Your task to perform on an android device: empty trash in google photos Image 0: 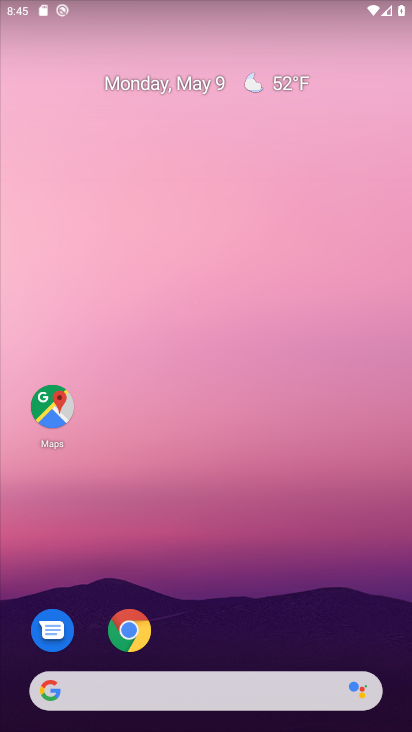
Step 0: drag from (224, 659) to (304, 33)
Your task to perform on an android device: empty trash in google photos Image 1: 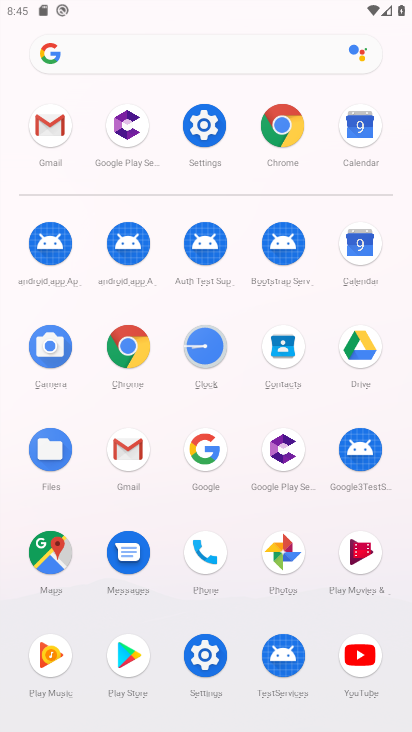
Step 1: click (292, 572)
Your task to perform on an android device: empty trash in google photos Image 2: 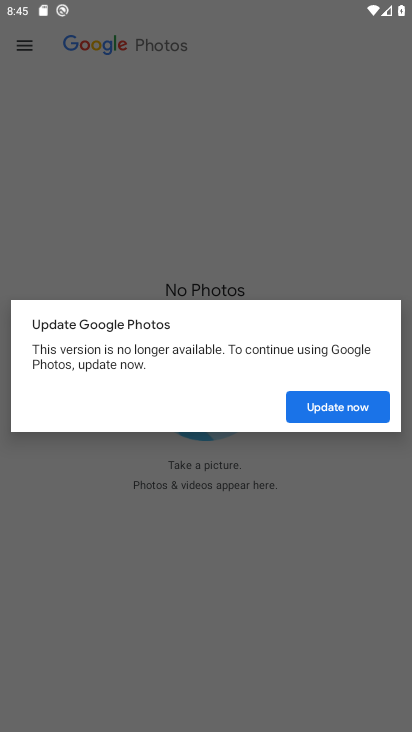
Step 2: click (356, 409)
Your task to perform on an android device: empty trash in google photos Image 3: 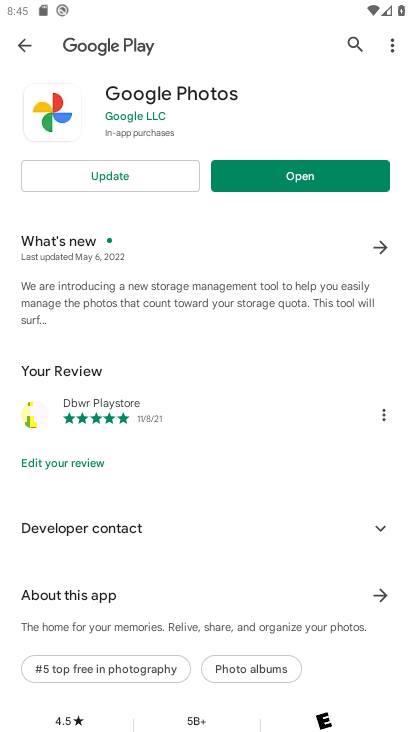
Step 3: click (256, 187)
Your task to perform on an android device: empty trash in google photos Image 4: 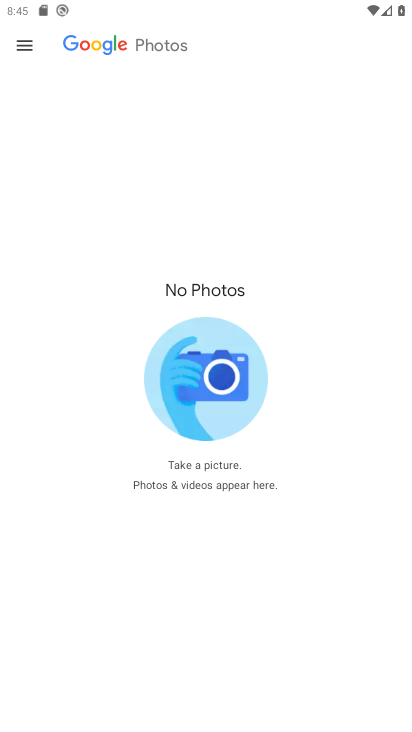
Step 4: drag from (189, 159) to (189, 621)
Your task to perform on an android device: empty trash in google photos Image 5: 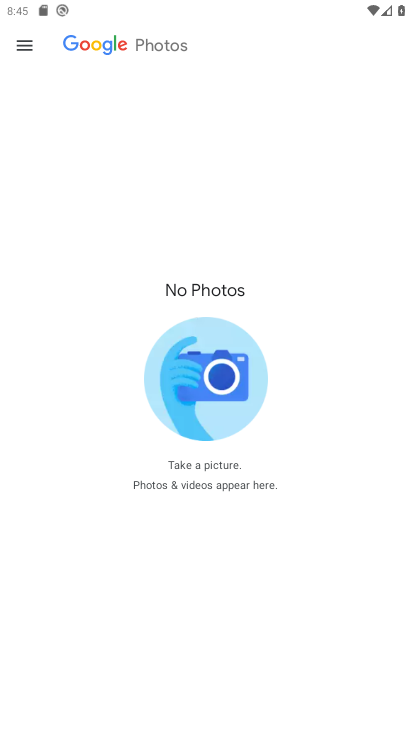
Step 5: click (32, 51)
Your task to perform on an android device: empty trash in google photos Image 6: 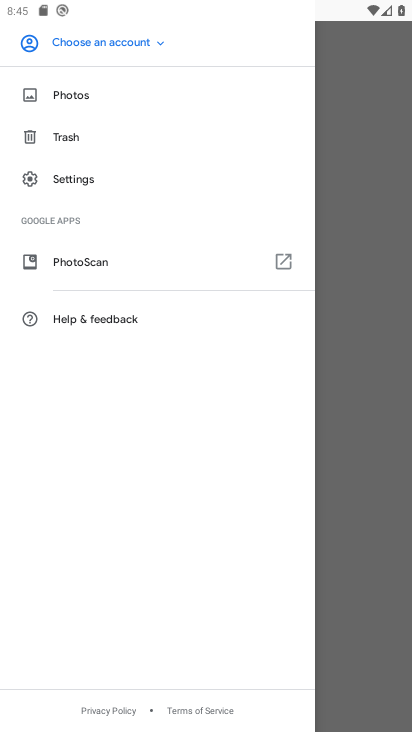
Step 6: click (74, 138)
Your task to perform on an android device: empty trash in google photos Image 7: 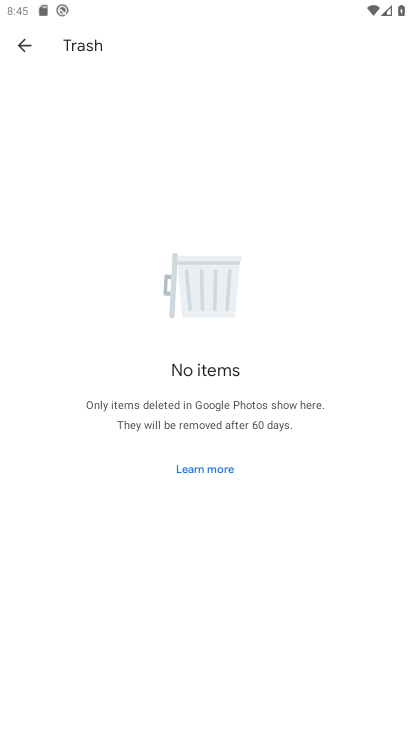
Step 7: task complete